Your task to perform on an android device: check android version Image 0: 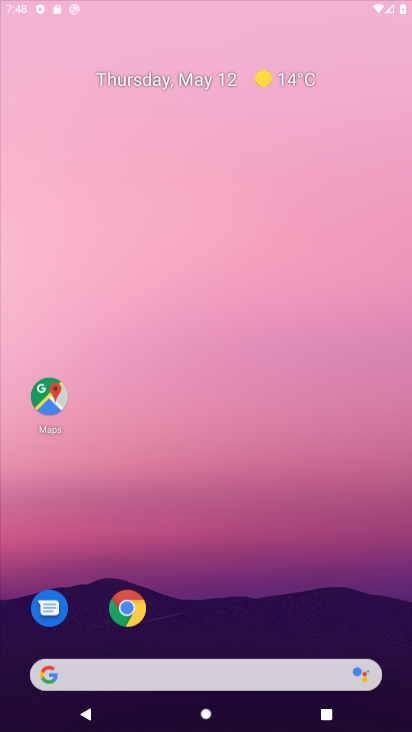
Step 0: drag from (274, 304) to (278, 103)
Your task to perform on an android device: check android version Image 1: 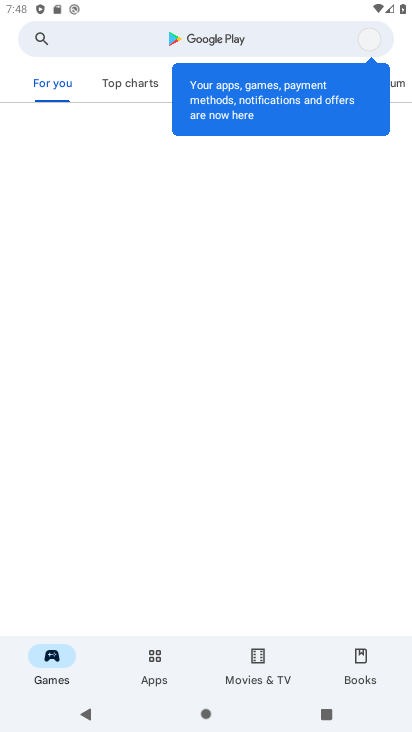
Step 1: press home button
Your task to perform on an android device: check android version Image 2: 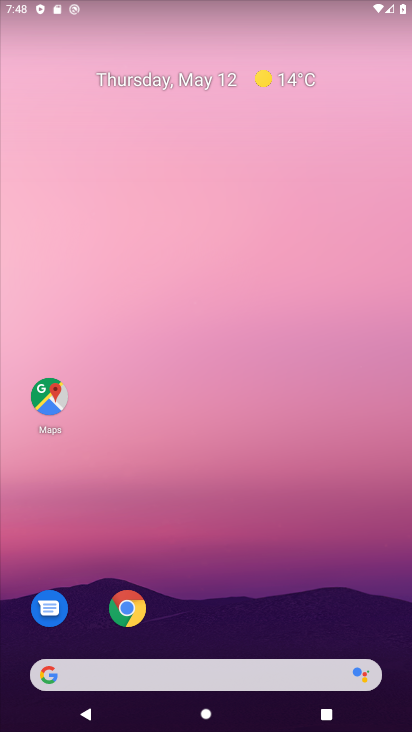
Step 2: drag from (262, 631) to (179, 52)
Your task to perform on an android device: check android version Image 3: 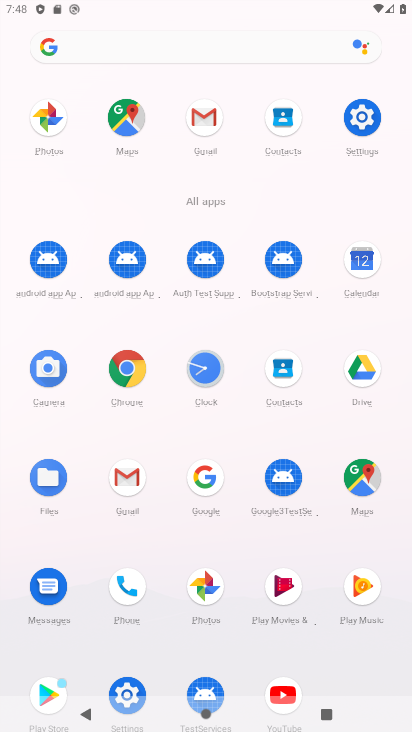
Step 3: click (356, 111)
Your task to perform on an android device: check android version Image 4: 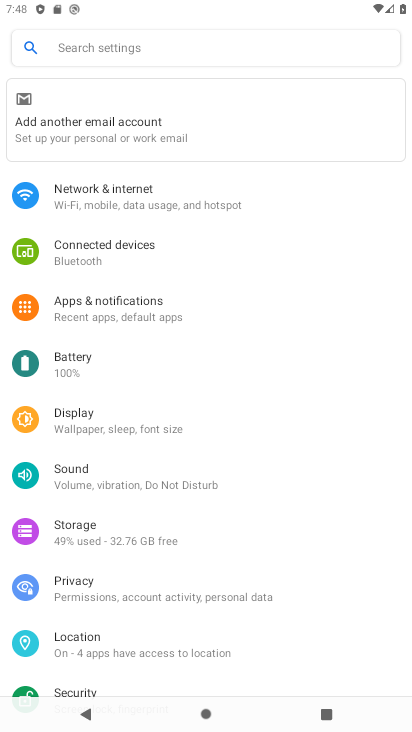
Step 4: drag from (249, 556) to (234, 230)
Your task to perform on an android device: check android version Image 5: 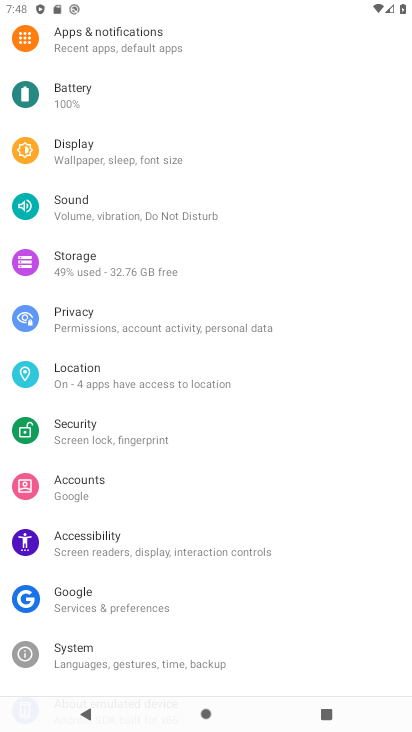
Step 5: drag from (213, 597) to (248, 265)
Your task to perform on an android device: check android version Image 6: 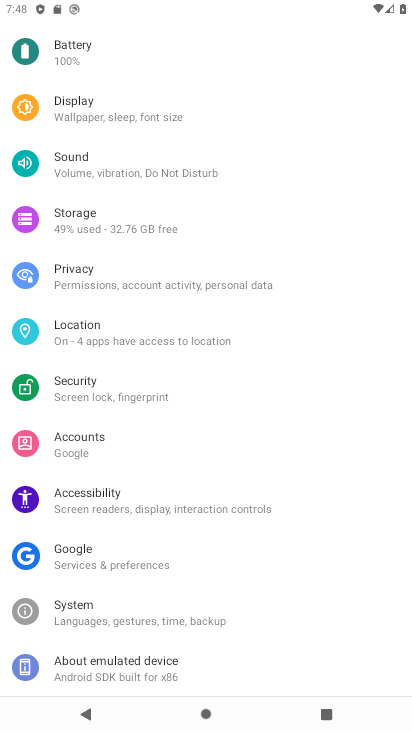
Step 6: click (118, 670)
Your task to perform on an android device: check android version Image 7: 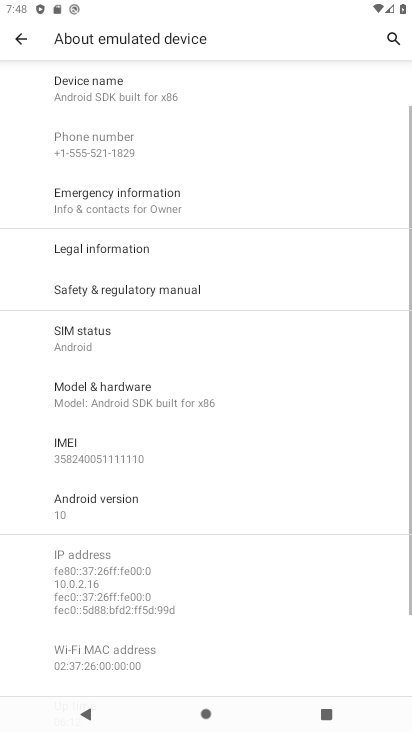
Step 7: click (122, 499)
Your task to perform on an android device: check android version Image 8: 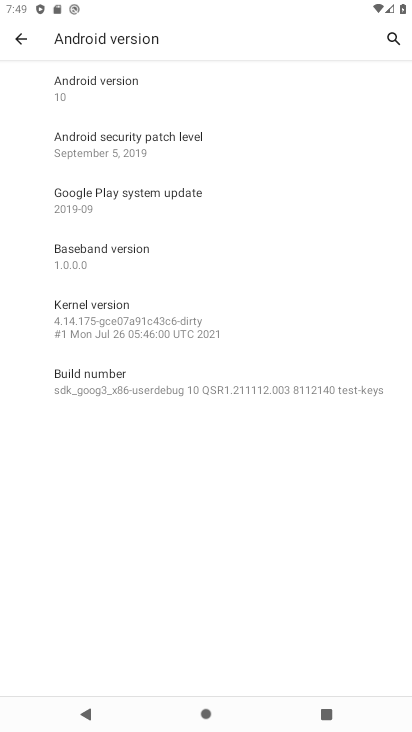
Step 8: task complete